Your task to perform on an android device: Go to accessibility settings Image 0: 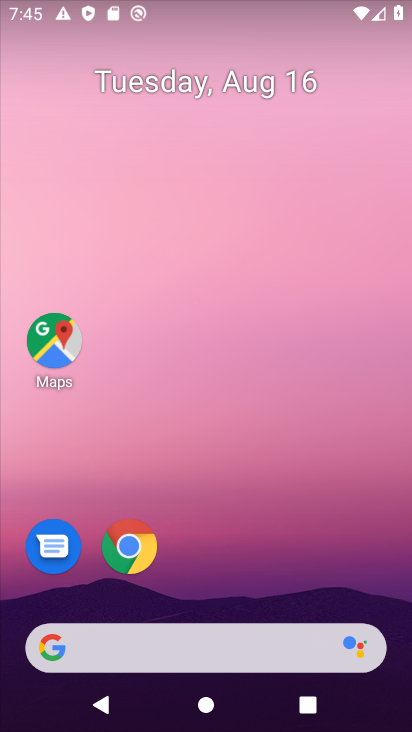
Step 0: drag from (235, 560) to (254, 14)
Your task to perform on an android device: Go to accessibility settings Image 1: 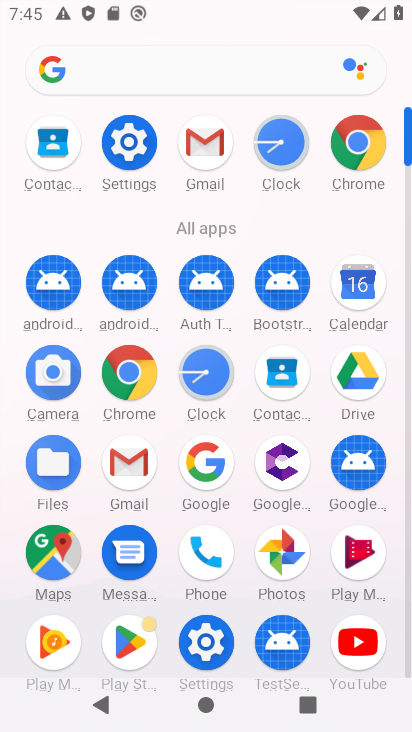
Step 1: click (131, 134)
Your task to perform on an android device: Go to accessibility settings Image 2: 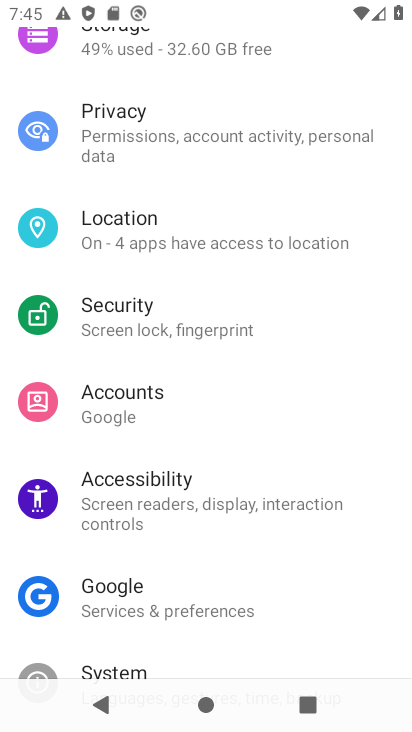
Step 2: click (231, 495)
Your task to perform on an android device: Go to accessibility settings Image 3: 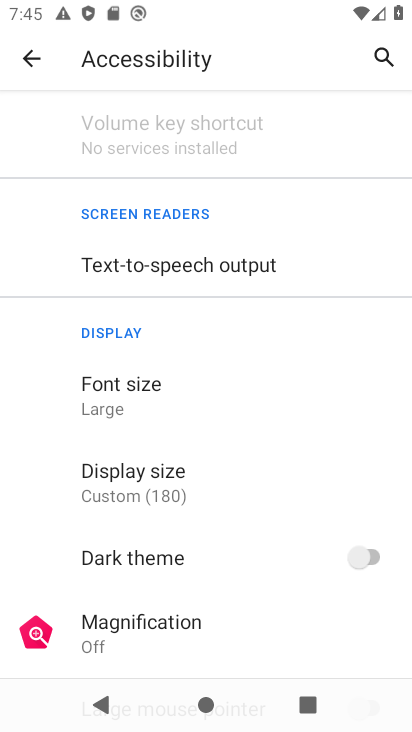
Step 3: task complete